Your task to perform on an android device: turn off notifications in google photos Image 0: 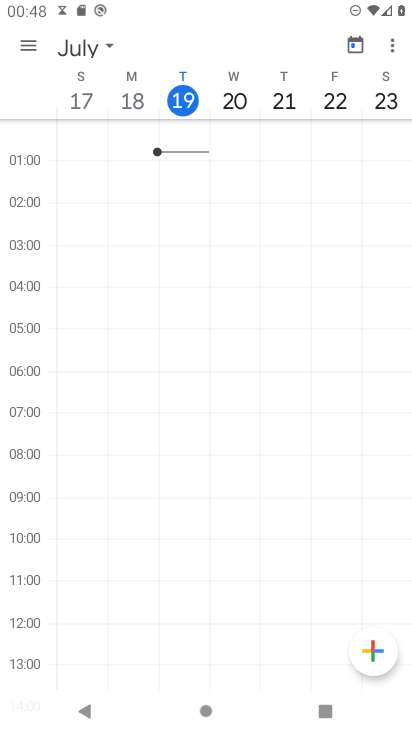
Step 0: press home button
Your task to perform on an android device: turn off notifications in google photos Image 1: 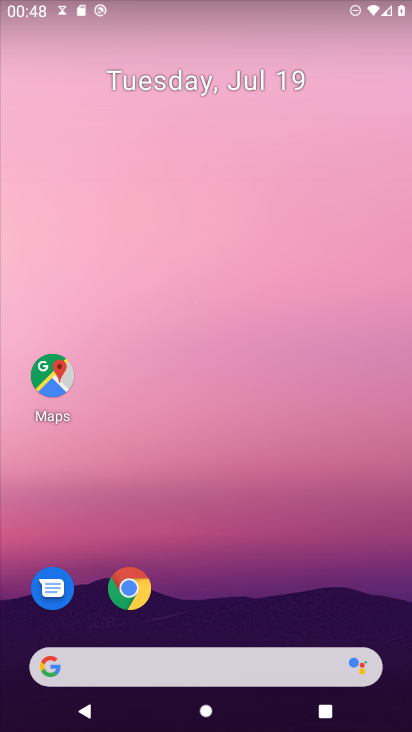
Step 1: drag from (244, 593) to (239, 98)
Your task to perform on an android device: turn off notifications in google photos Image 2: 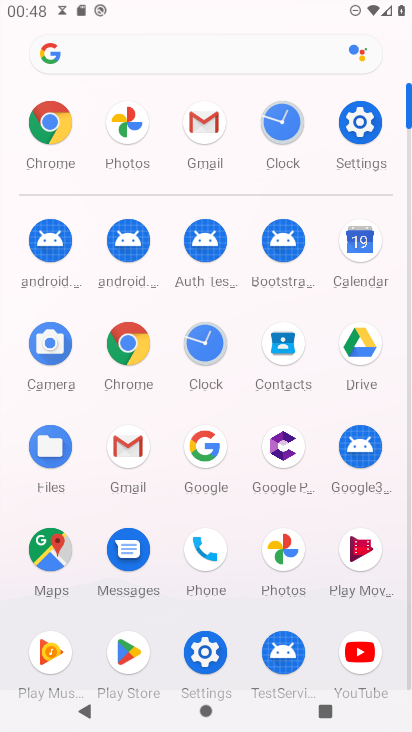
Step 2: click (277, 540)
Your task to perform on an android device: turn off notifications in google photos Image 3: 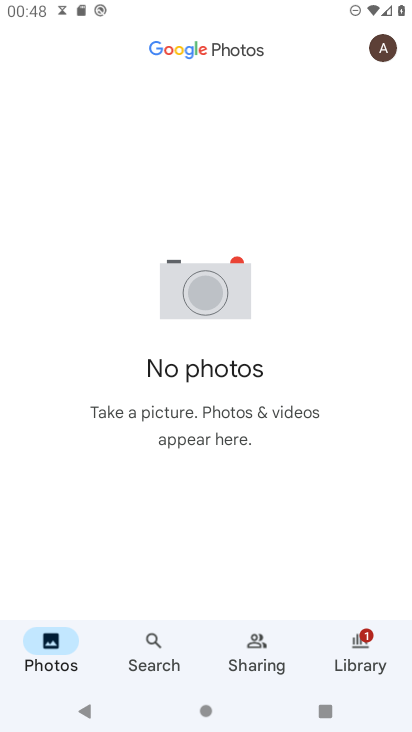
Step 3: click (383, 46)
Your task to perform on an android device: turn off notifications in google photos Image 4: 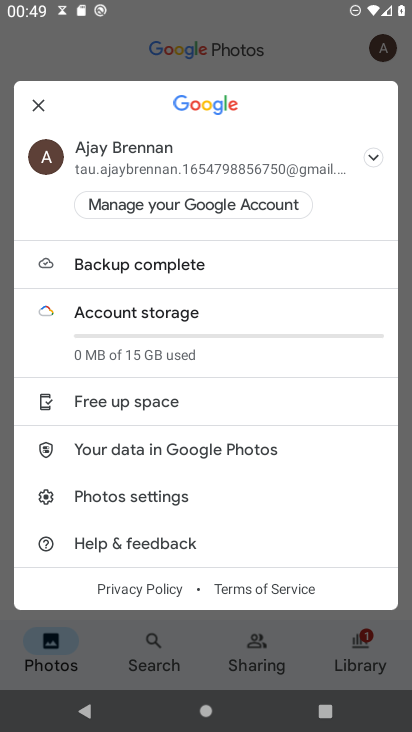
Step 4: click (143, 497)
Your task to perform on an android device: turn off notifications in google photos Image 5: 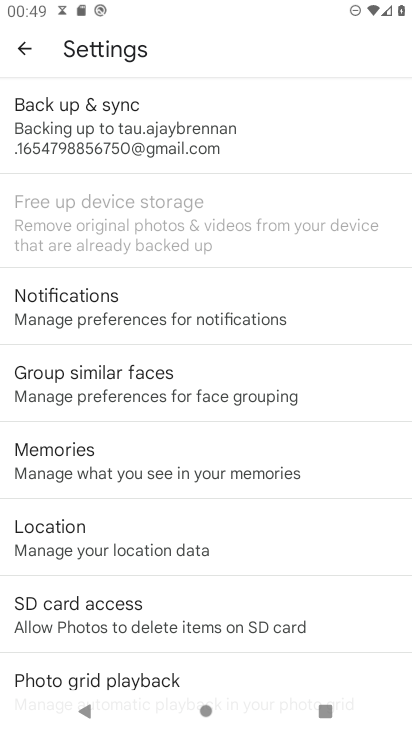
Step 5: click (109, 304)
Your task to perform on an android device: turn off notifications in google photos Image 6: 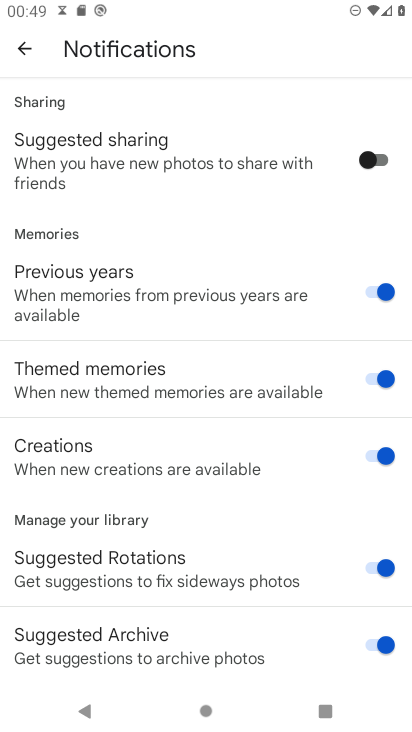
Step 6: drag from (170, 517) to (207, 204)
Your task to perform on an android device: turn off notifications in google photos Image 7: 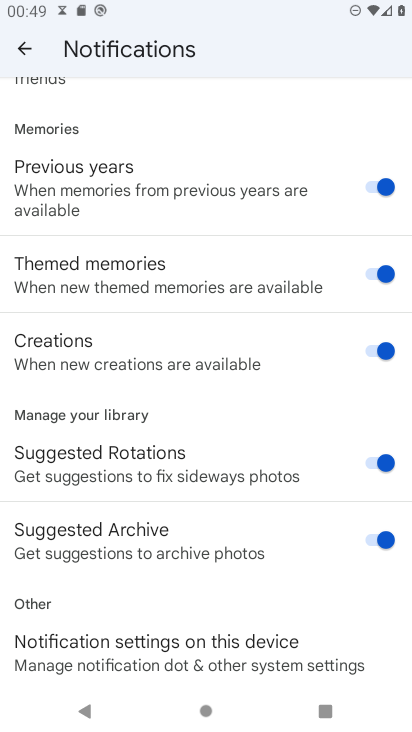
Step 7: click (194, 654)
Your task to perform on an android device: turn off notifications in google photos Image 8: 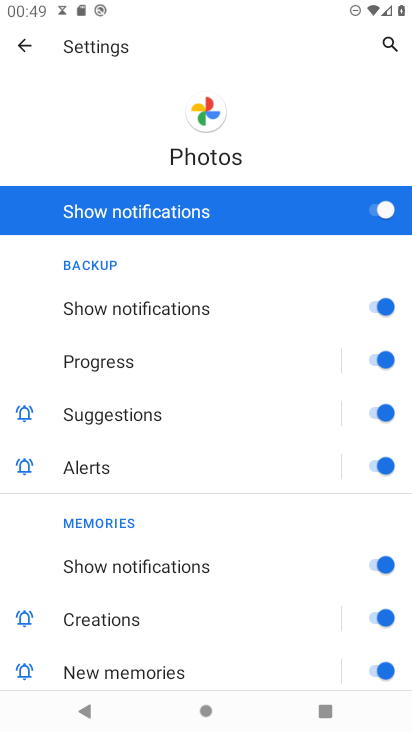
Step 8: click (381, 214)
Your task to perform on an android device: turn off notifications in google photos Image 9: 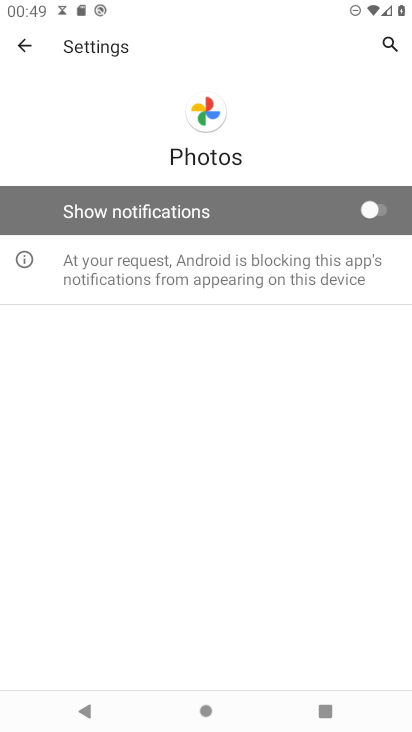
Step 9: task complete